Your task to perform on an android device: Turn on the flashlight Image 0: 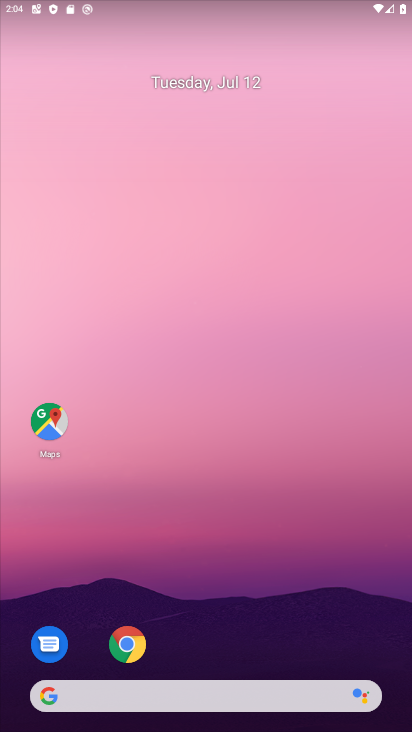
Step 0: drag from (180, 665) to (193, 94)
Your task to perform on an android device: Turn on the flashlight Image 1: 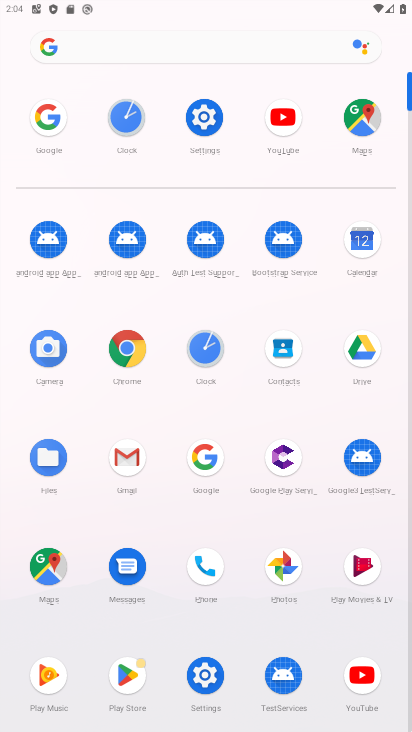
Step 1: click (205, 119)
Your task to perform on an android device: Turn on the flashlight Image 2: 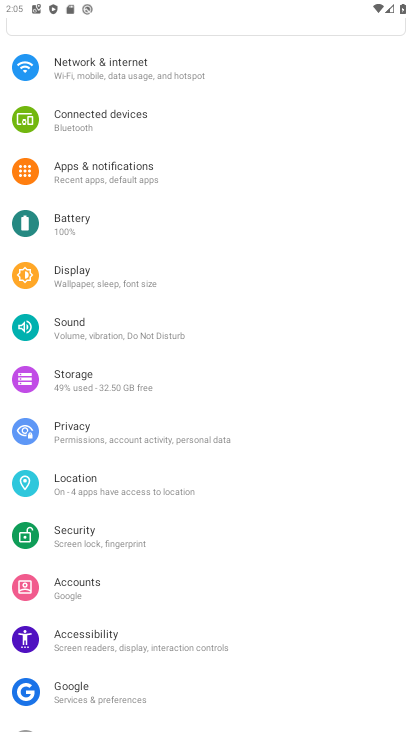
Step 2: task complete